Your task to perform on an android device: remove spam from my inbox in the gmail app Image 0: 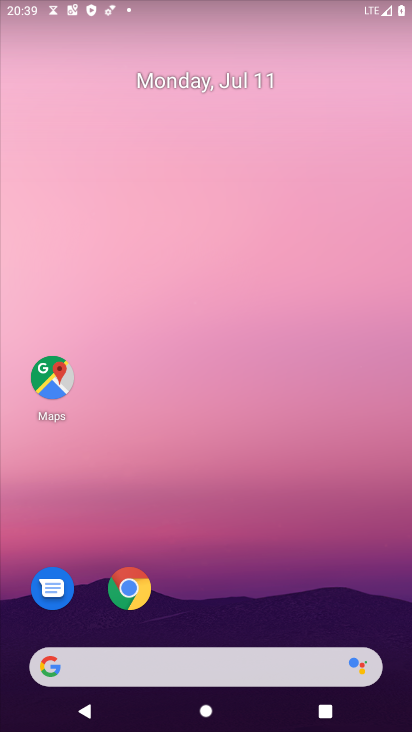
Step 0: press home button
Your task to perform on an android device: remove spam from my inbox in the gmail app Image 1: 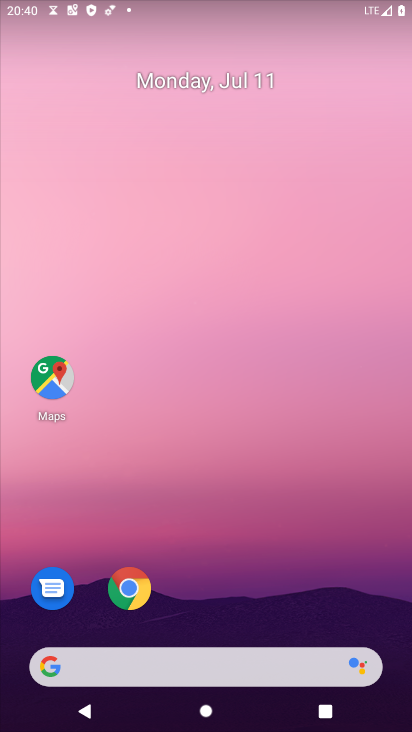
Step 1: drag from (211, 625) to (192, 103)
Your task to perform on an android device: remove spam from my inbox in the gmail app Image 2: 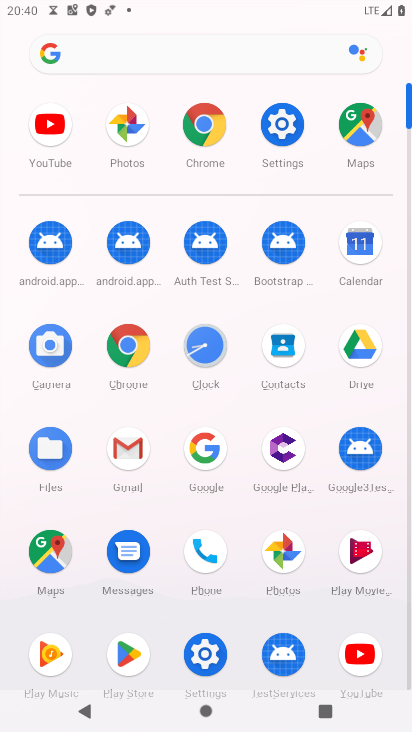
Step 2: click (121, 446)
Your task to perform on an android device: remove spam from my inbox in the gmail app Image 3: 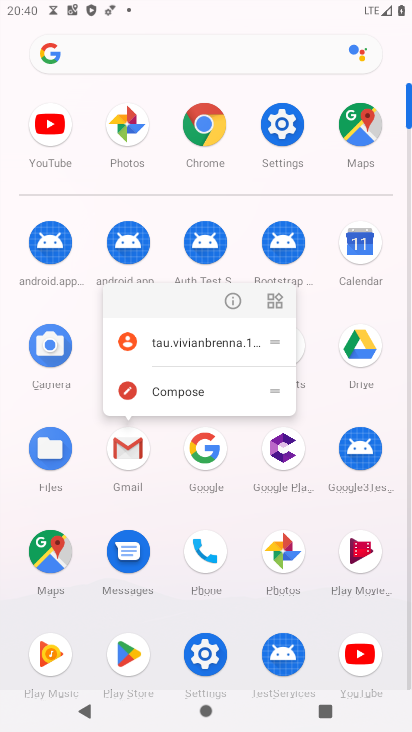
Step 3: click (130, 454)
Your task to perform on an android device: remove spam from my inbox in the gmail app Image 4: 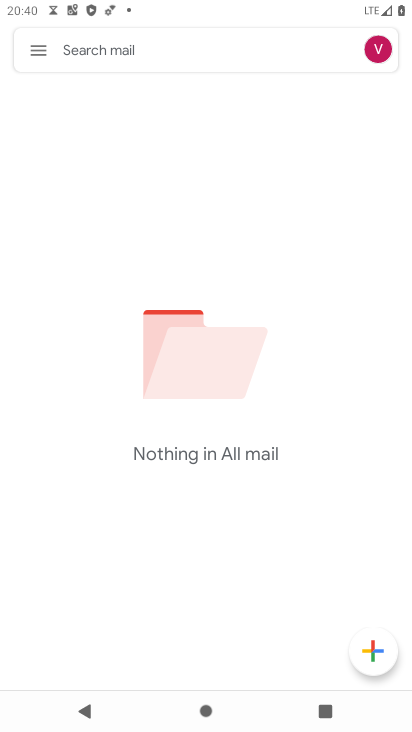
Step 4: click (40, 51)
Your task to perform on an android device: remove spam from my inbox in the gmail app Image 5: 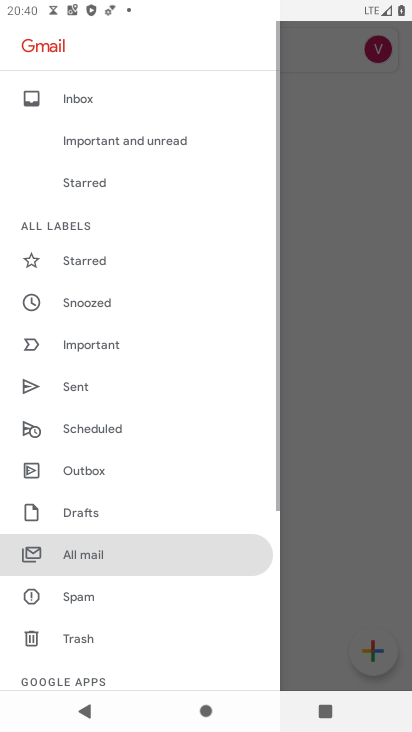
Step 5: click (83, 596)
Your task to perform on an android device: remove spam from my inbox in the gmail app Image 6: 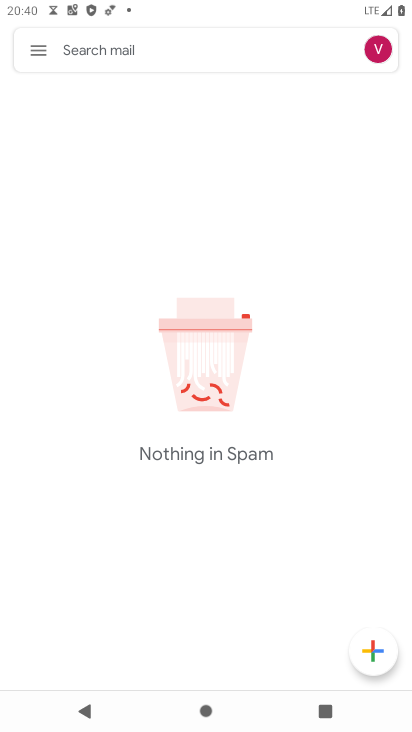
Step 6: task complete